Your task to perform on an android device: see sites visited before in the chrome app Image 0: 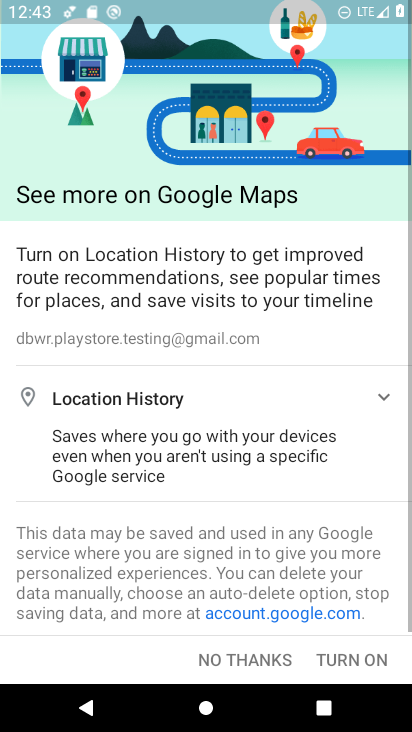
Step 0: click (146, 564)
Your task to perform on an android device: see sites visited before in the chrome app Image 1: 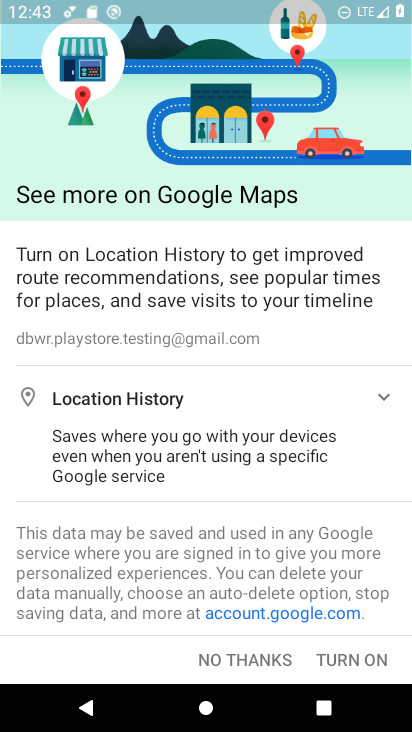
Step 1: press home button
Your task to perform on an android device: see sites visited before in the chrome app Image 2: 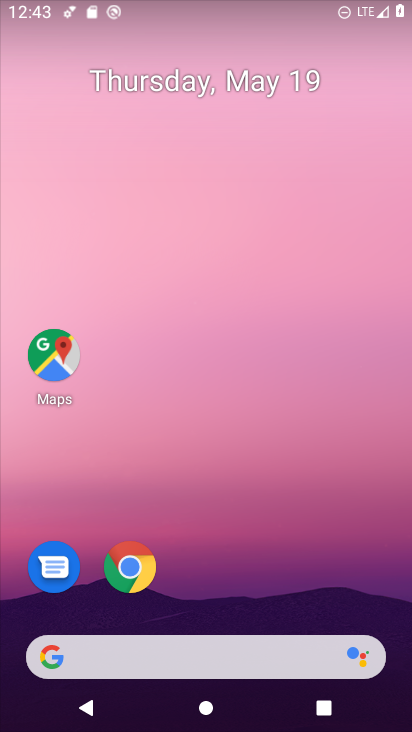
Step 2: click (131, 575)
Your task to perform on an android device: see sites visited before in the chrome app Image 3: 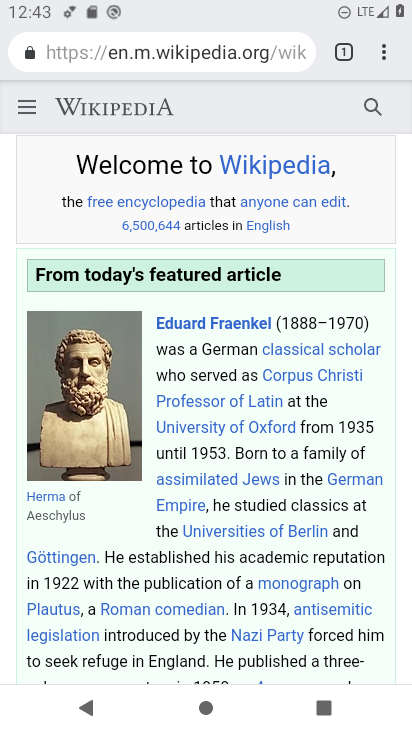
Step 3: click (383, 50)
Your task to perform on an android device: see sites visited before in the chrome app Image 4: 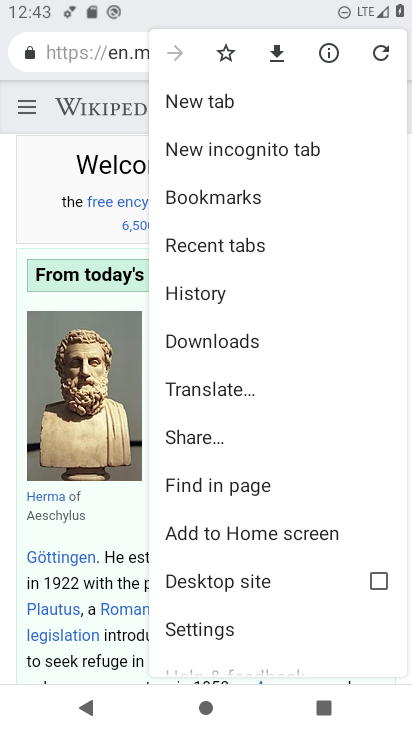
Step 4: click (236, 247)
Your task to perform on an android device: see sites visited before in the chrome app Image 5: 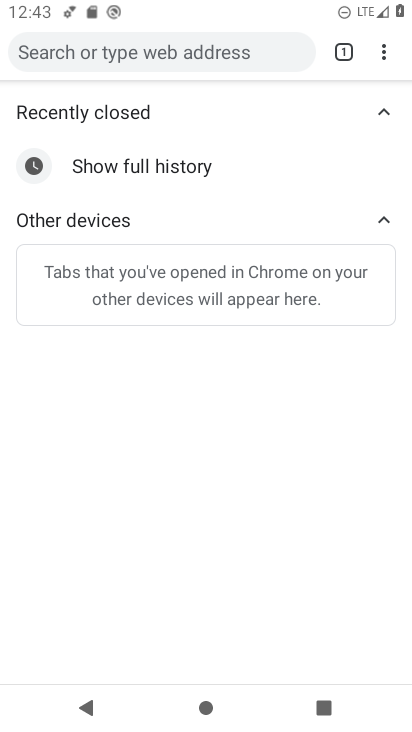
Step 5: task complete